Your task to perform on an android device: change the clock display to analog Image 0: 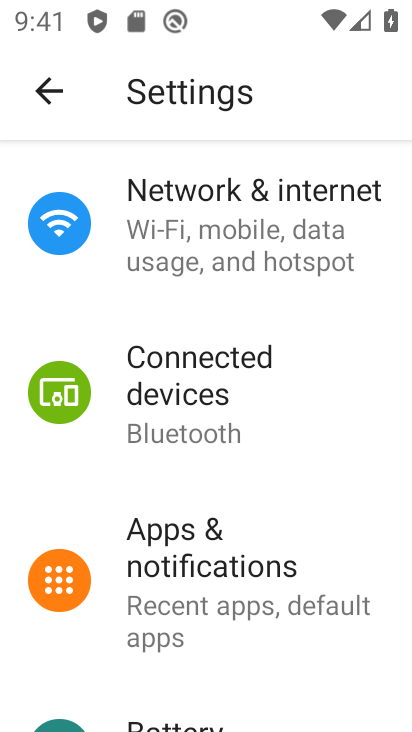
Step 0: press home button
Your task to perform on an android device: change the clock display to analog Image 1: 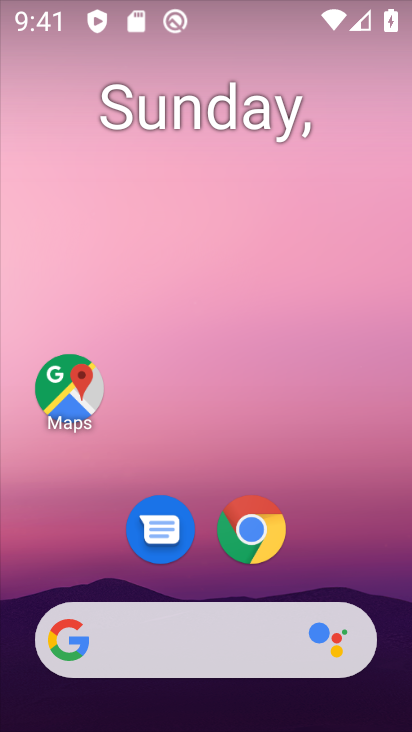
Step 1: drag from (334, 518) to (254, 0)
Your task to perform on an android device: change the clock display to analog Image 2: 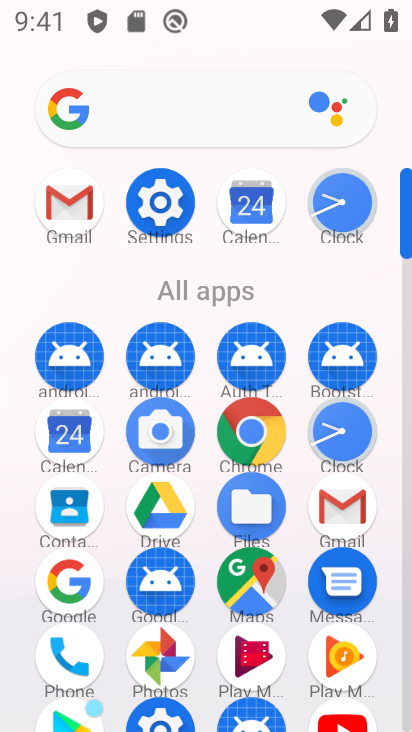
Step 2: click (338, 208)
Your task to perform on an android device: change the clock display to analog Image 3: 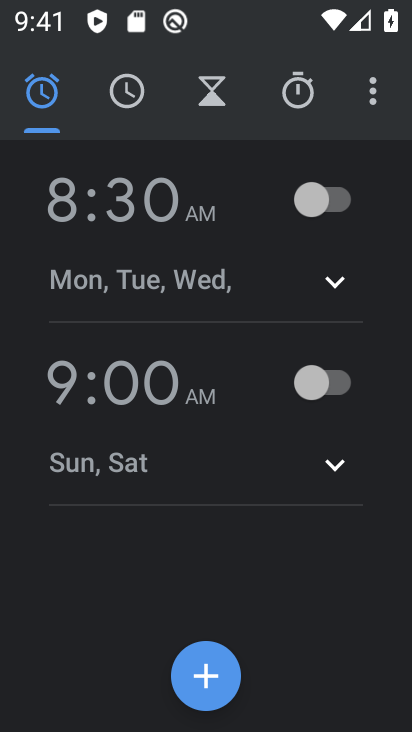
Step 3: click (374, 99)
Your task to perform on an android device: change the clock display to analog Image 4: 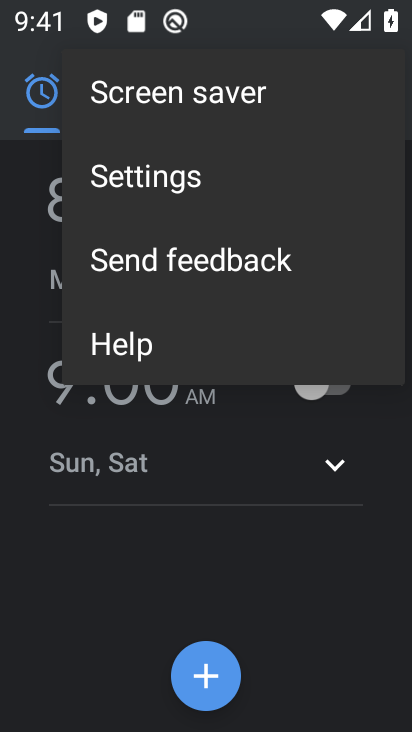
Step 4: click (174, 169)
Your task to perform on an android device: change the clock display to analog Image 5: 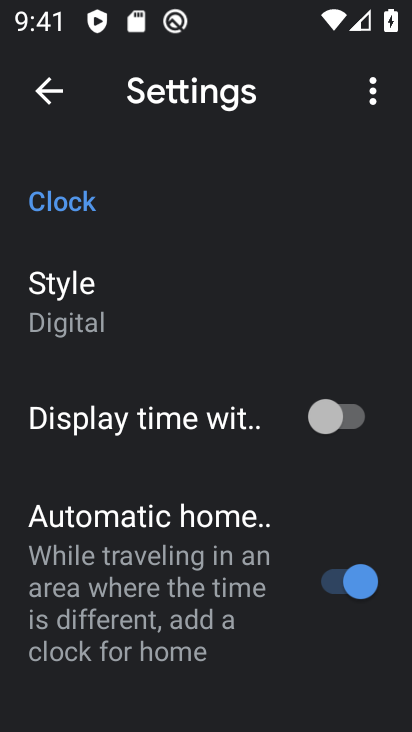
Step 5: click (83, 295)
Your task to perform on an android device: change the clock display to analog Image 6: 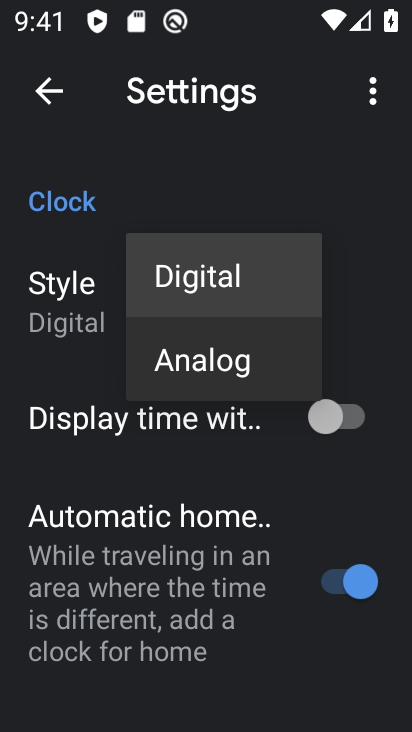
Step 6: click (207, 358)
Your task to perform on an android device: change the clock display to analog Image 7: 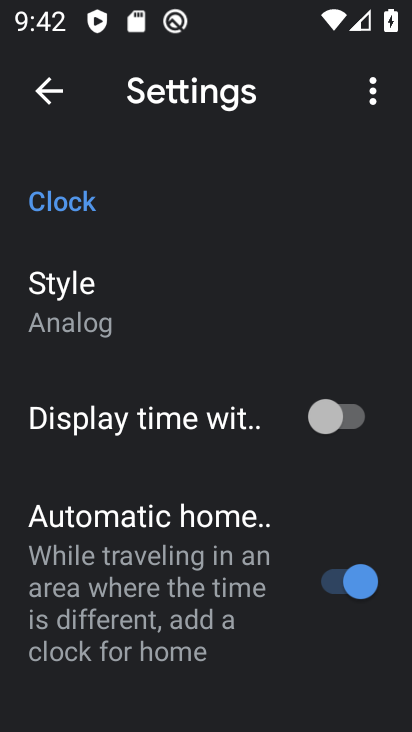
Step 7: task complete